Your task to perform on an android device: Do I have any events tomorrow? Image 0: 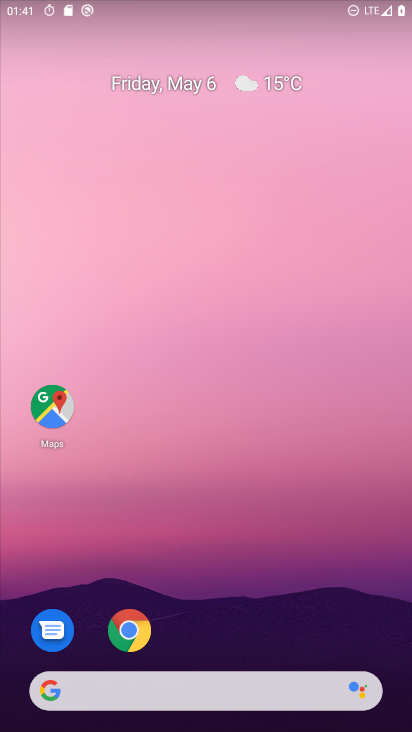
Step 0: drag from (299, 595) to (232, 149)
Your task to perform on an android device: Do I have any events tomorrow? Image 1: 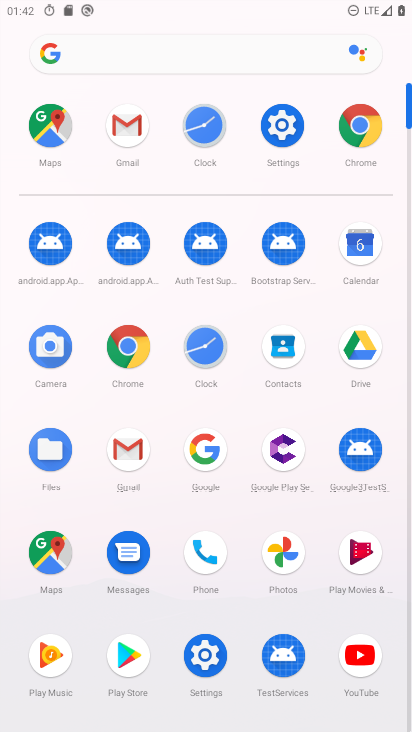
Step 1: click (361, 247)
Your task to perform on an android device: Do I have any events tomorrow? Image 2: 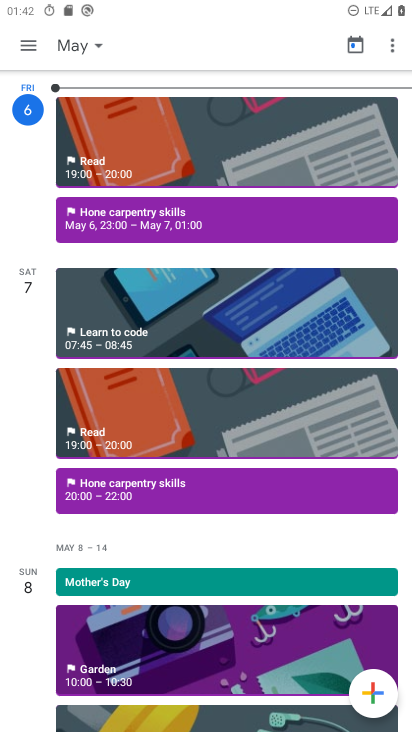
Step 2: click (34, 41)
Your task to perform on an android device: Do I have any events tomorrow? Image 3: 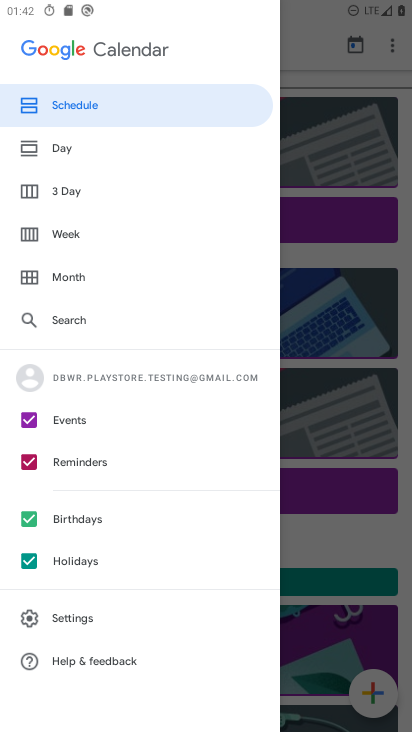
Step 3: click (324, 68)
Your task to perform on an android device: Do I have any events tomorrow? Image 4: 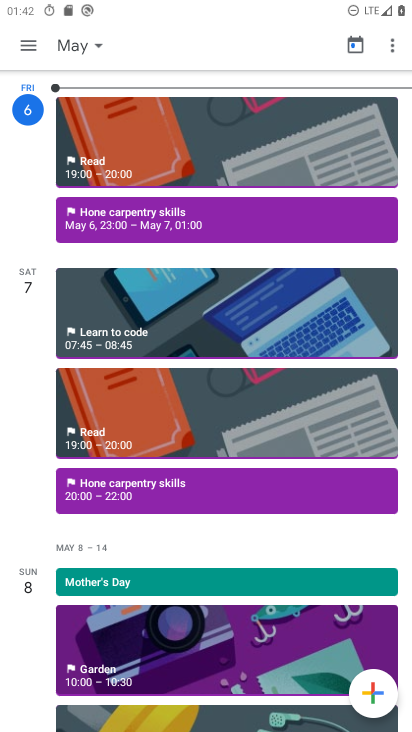
Step 4: click (23, 275)
Your task to perform on an android device: Do I have any events tomorrow? Image 5: 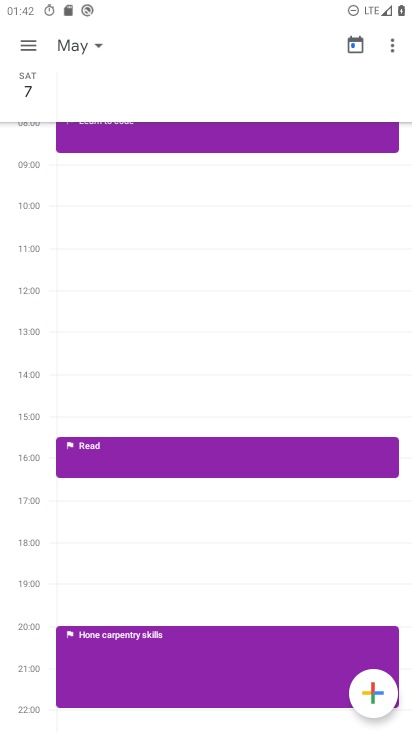
Step 5: task complete